Your task to perform on an android device: Go to ESPN.com Image 0: 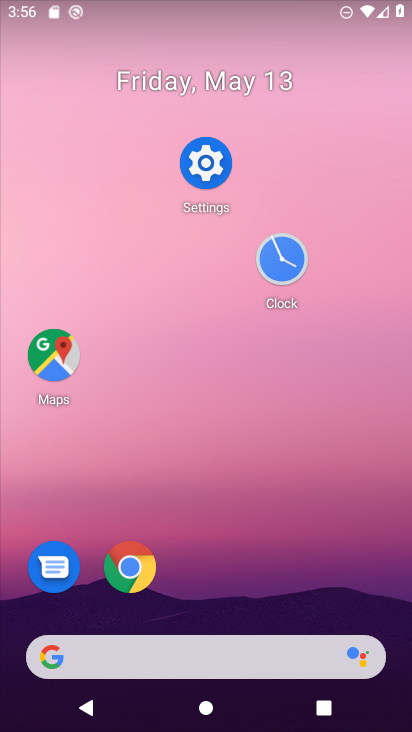
Step 0: click (199, 152)
Your task to perform on an android device: Go to ESPN.com Image 1: 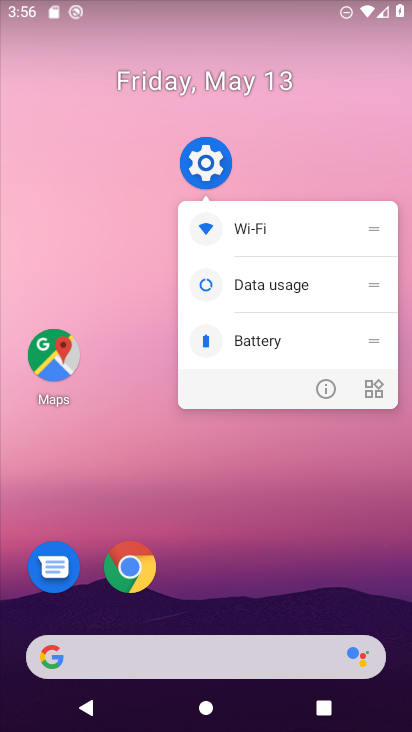
Step 1: click (121, 569)
Your task to perform on an android device: Go to ESPN.com Image 2: 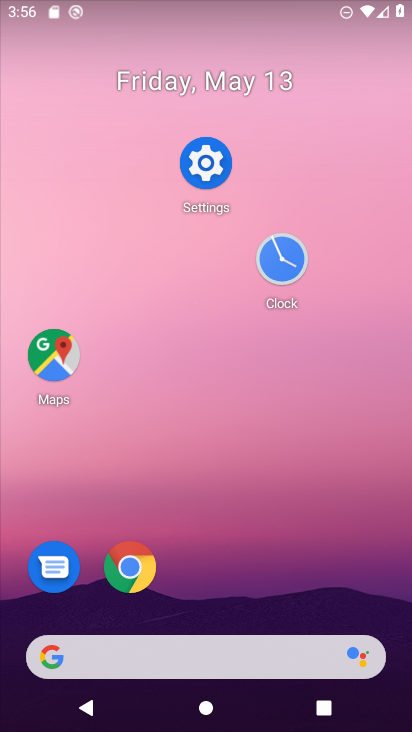
Step 2: click (151, 560)
Your task to perform on an android device: Go to ESPN.com Image 3: 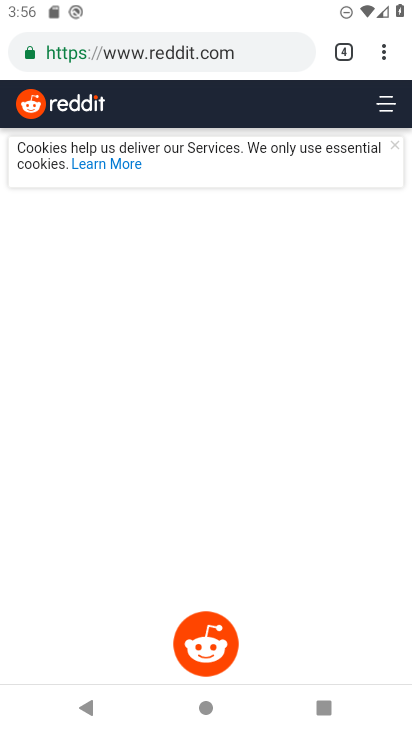
Step 3: click (291, 58)
Your task to perform on an android device: Go to ESPN.com Image 4: 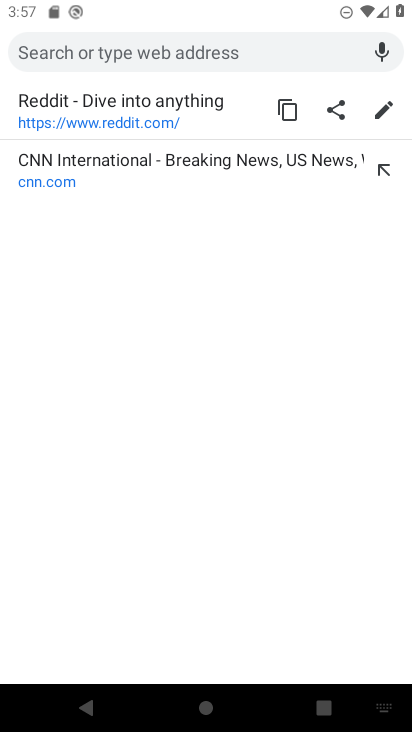
Step 4: click (283, 181)
Your task to perform on an android device: Go to ESPN.com Image 5: 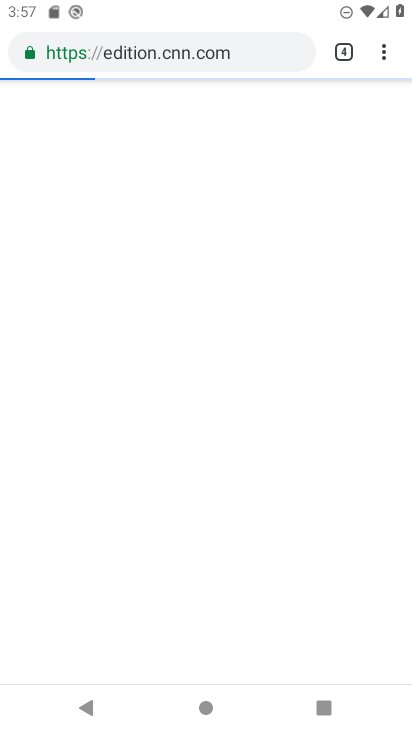
Step 5: click (213, 64)
Your task to perform on an android device: Go to ESPN.com Image 6: 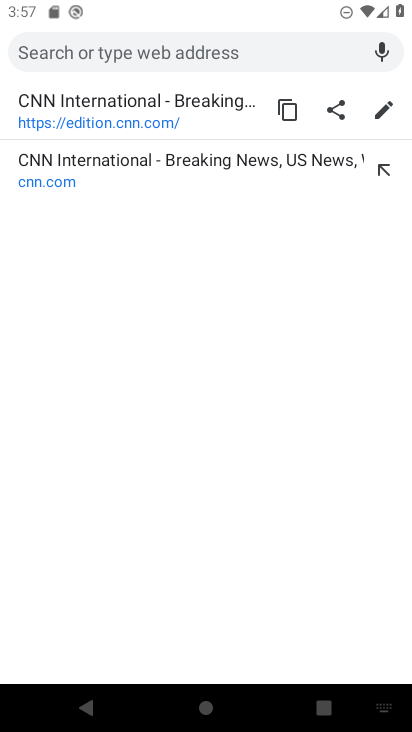
Step 6: type "espn"
Your task to perform on an android device: Go to ESPN.com Image 7: 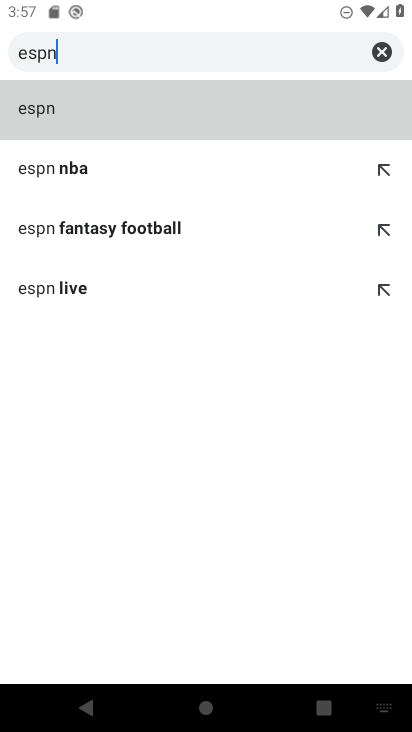
Step 7: click (163, 174)
Your task to perform on an android device: Go to ESPN.com Image 8: 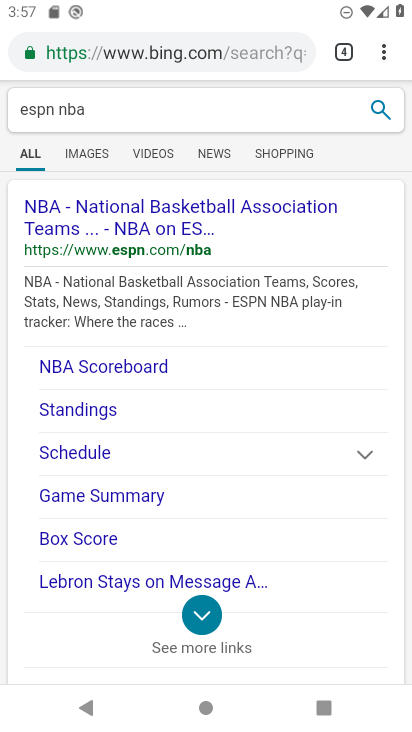
Step 8: task complete